Your task to perform on an android device: Show me productivity apps on the Play Store Image 0: 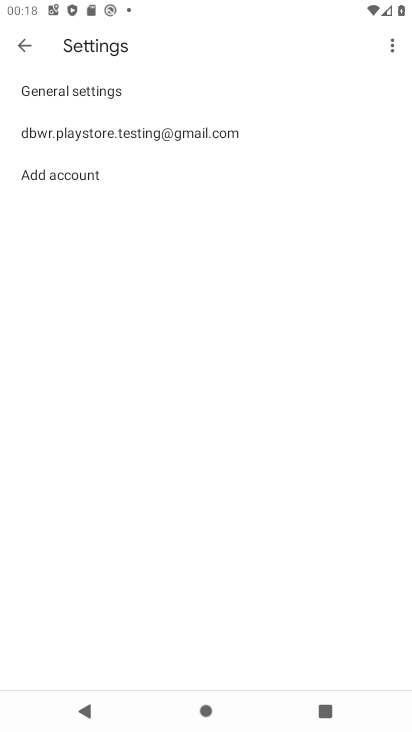
Step 0: press home button
Your task to perform on an android device: Show me productivity apps on the Play Store Image 1: 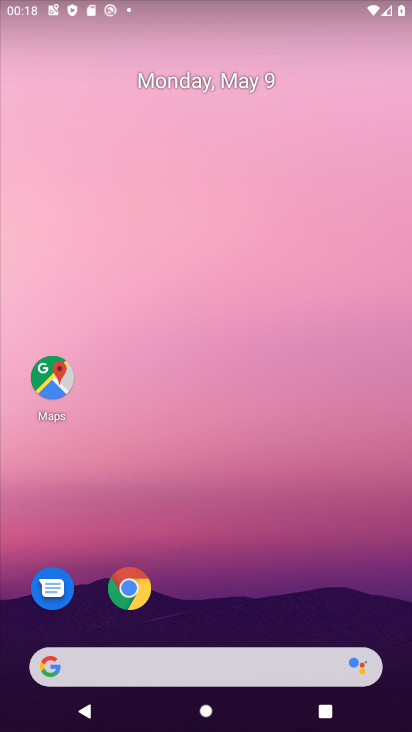
Step 1: drag from (252, 570) to (264, 139)
Your task to perform on an android device: Show me productivity apps on the Play Store Image 2: 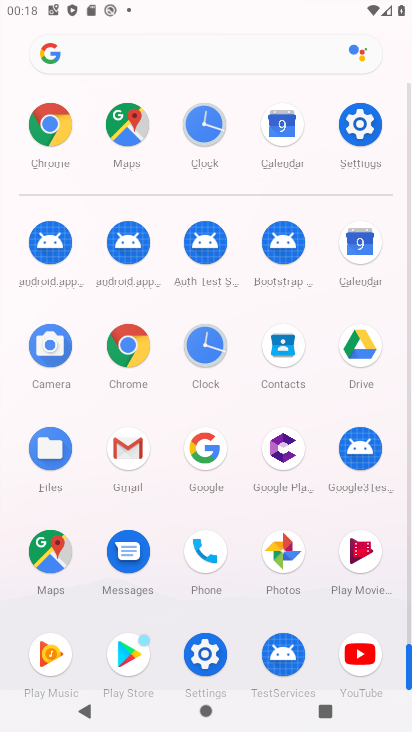
Step 2: click (123, 646)
Your task to perform on an android device: Show me productivity apps on the Play Store Image 3: 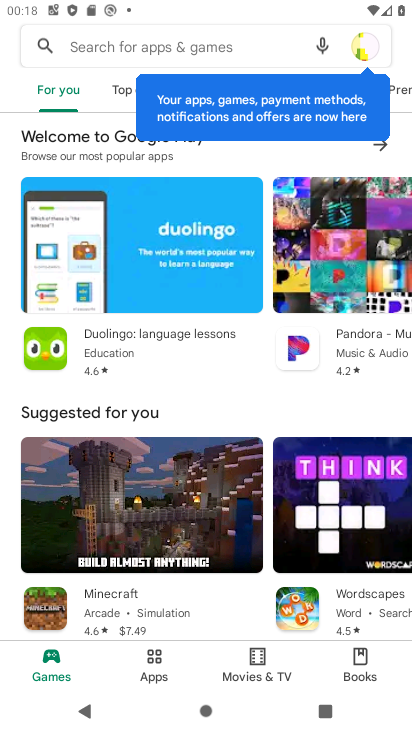
Step 3: click (148, 661)
Your task to perform on an android device: Show me productivity apps on the Play Store Image 4: 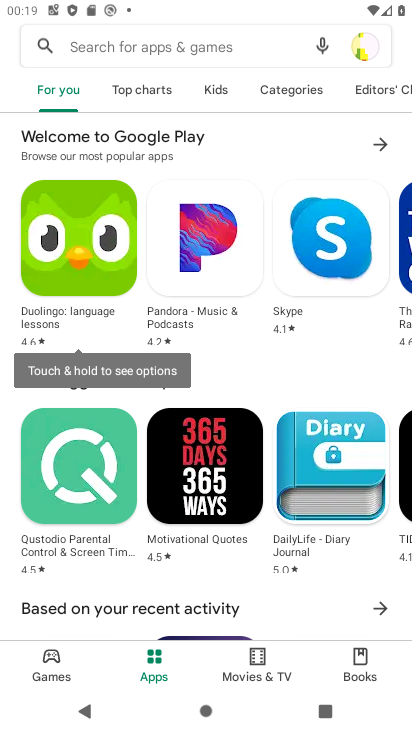
Step 4: task complete